Your task to perform on an android device: turn off translation in the chrome app Image 0: 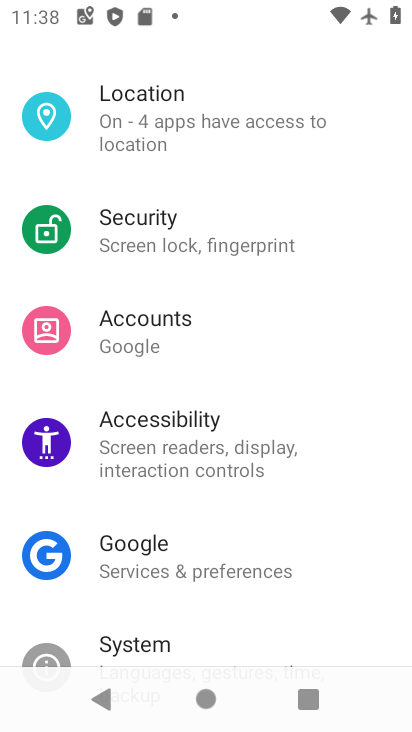
Step 0: press home button
Your task to perform on an android device: turn off translation in the chrome app Image 1: 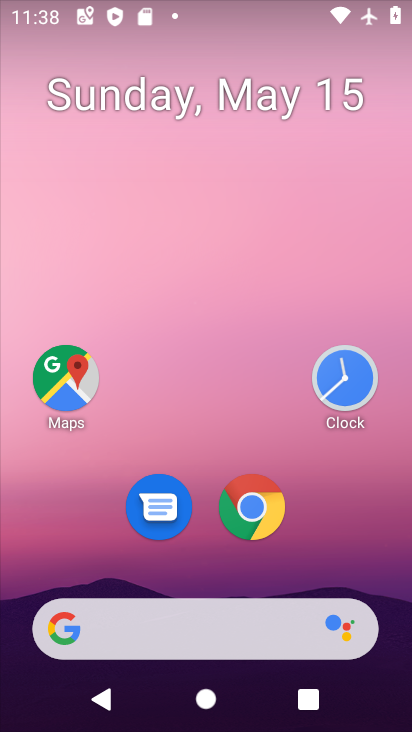
Step 1: click (244, 516)
Your task to perform on an android device: turn off translation in the chrome app Image 2: 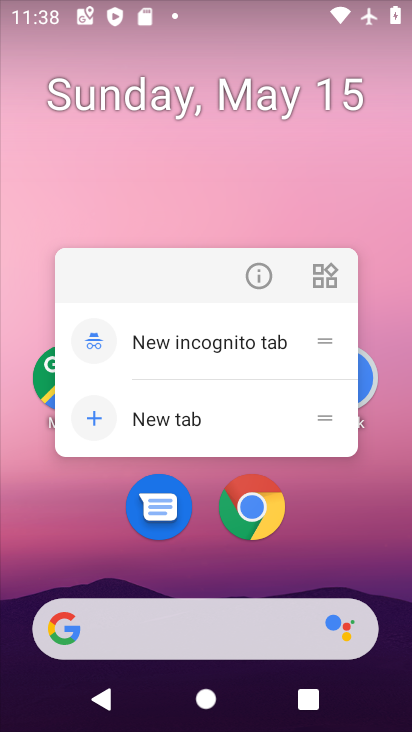
Step 2: click (244, 516)
Your task to perform on an android device: turn off translation in the chrome app Image 3: 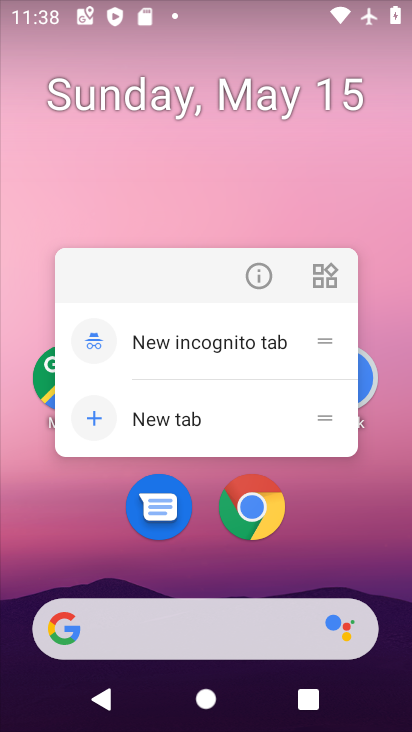
Step 3: click (266, 533)
Your task to perform on an android device: turn off translation in the chrome app Image 4: 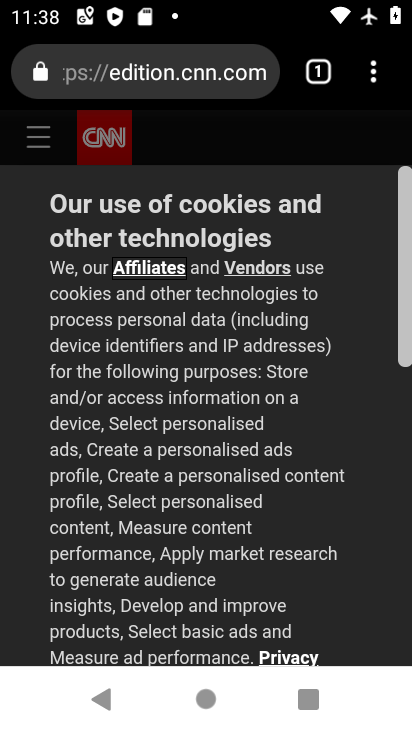
Step 4: drag from (374, 72) to (218, 501)
Your task to perform on an android device: turn off translation in the chrome app Image 5: 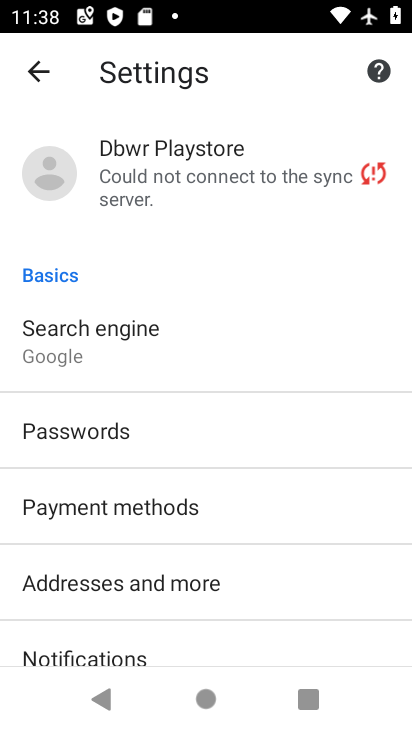
Step 5: drag from (220, 620) to (248, 293)
Your task to perform on an android device: turn off translation in the chrome app Image 6: 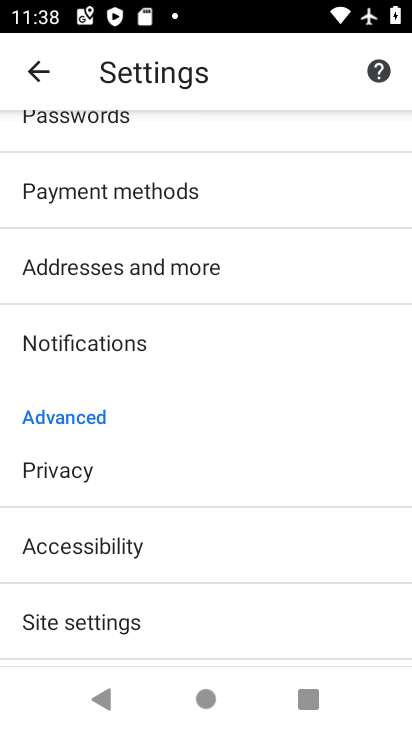
Step 6: drag from (190, 634) to (215, 312)
Your task to perform on an android device: turn off translation in the chrome app Image 7: 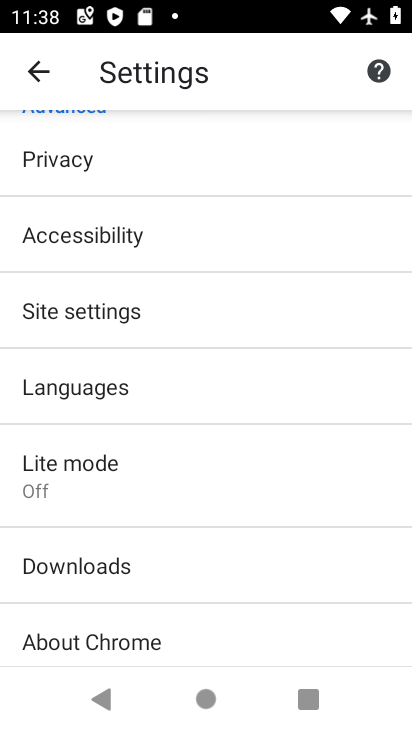
Step 7: click (155, 391)
Your task to perform on an android device: turn off translation in the chrome app Image 8: 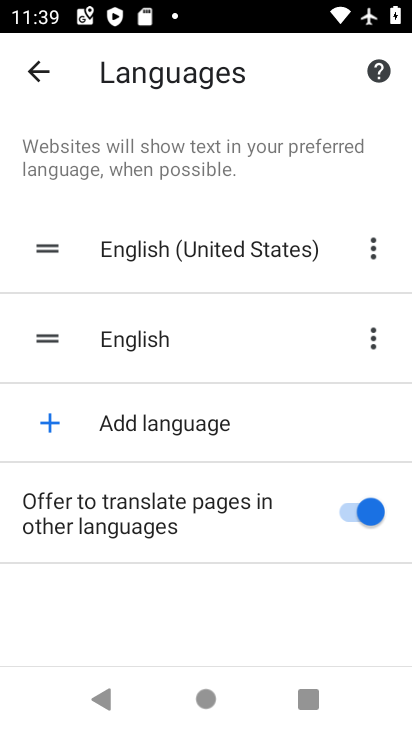
Step 8: click (368, 510)
Your task to perform on an android device: turn off translation in the chrome app Image 9: 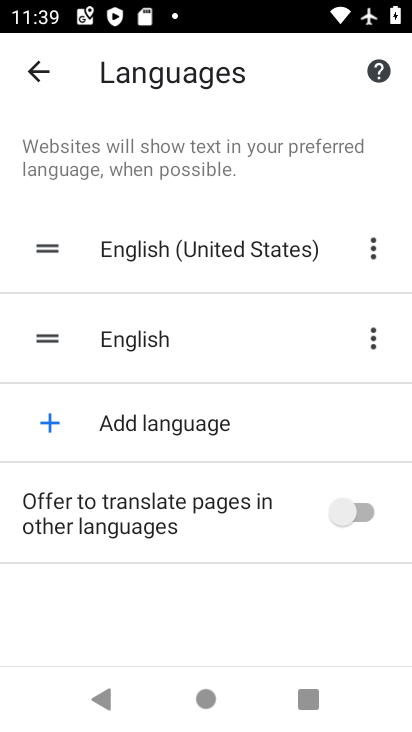
Step 9: task complete